Your task to perform on an android device: Go to CNN.com Image 0: 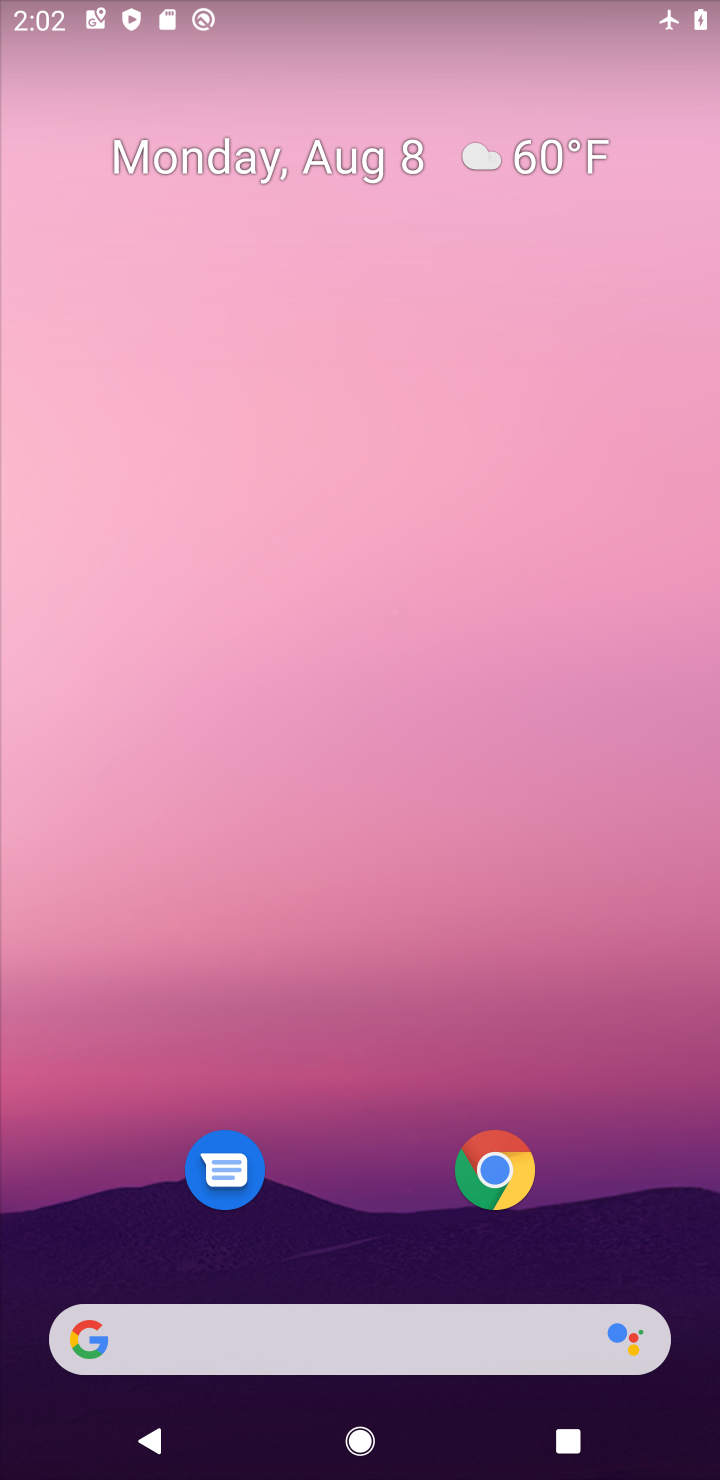
Step 0: press home button
Your task to perform on an android device: Go to CNN.com Image 1: 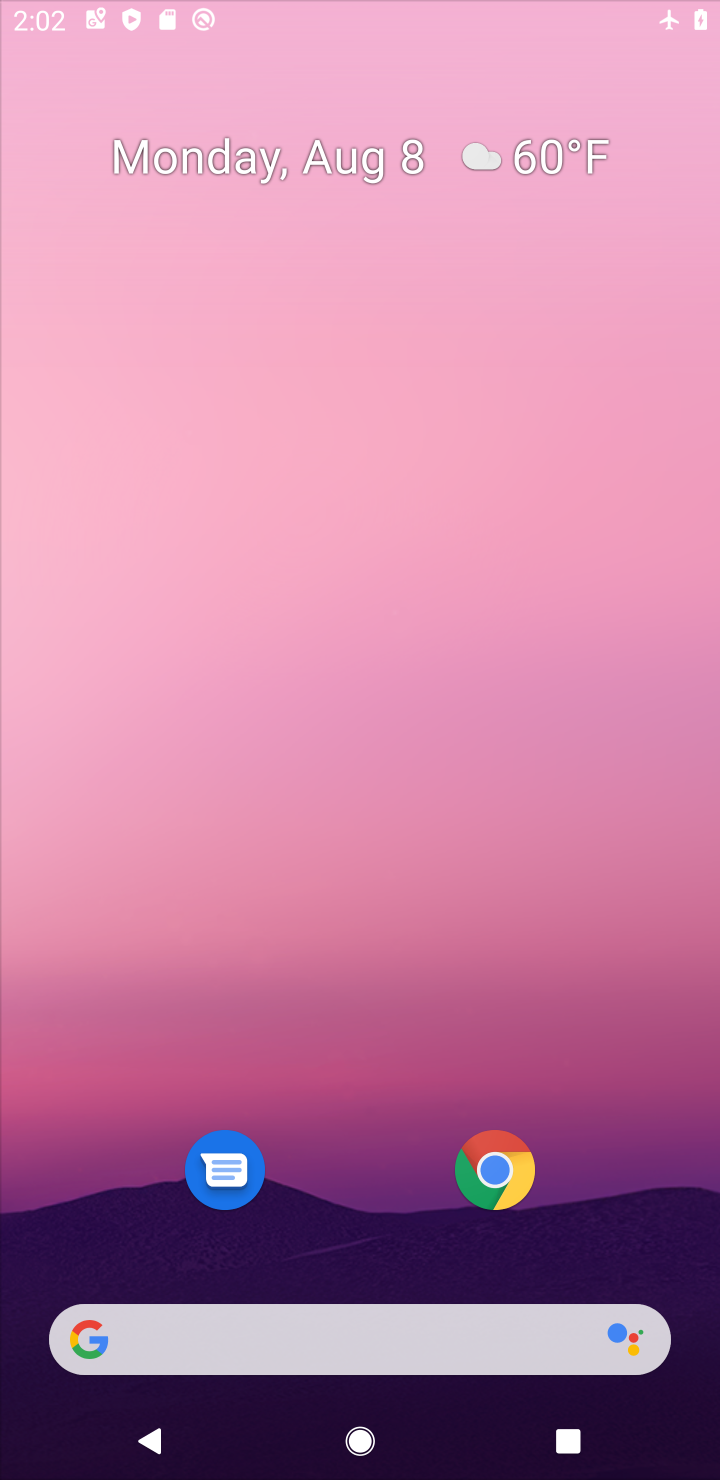
Step 1: click (509, 1184)
Your task to perform on an android device: Go to CNN.com Image 2: 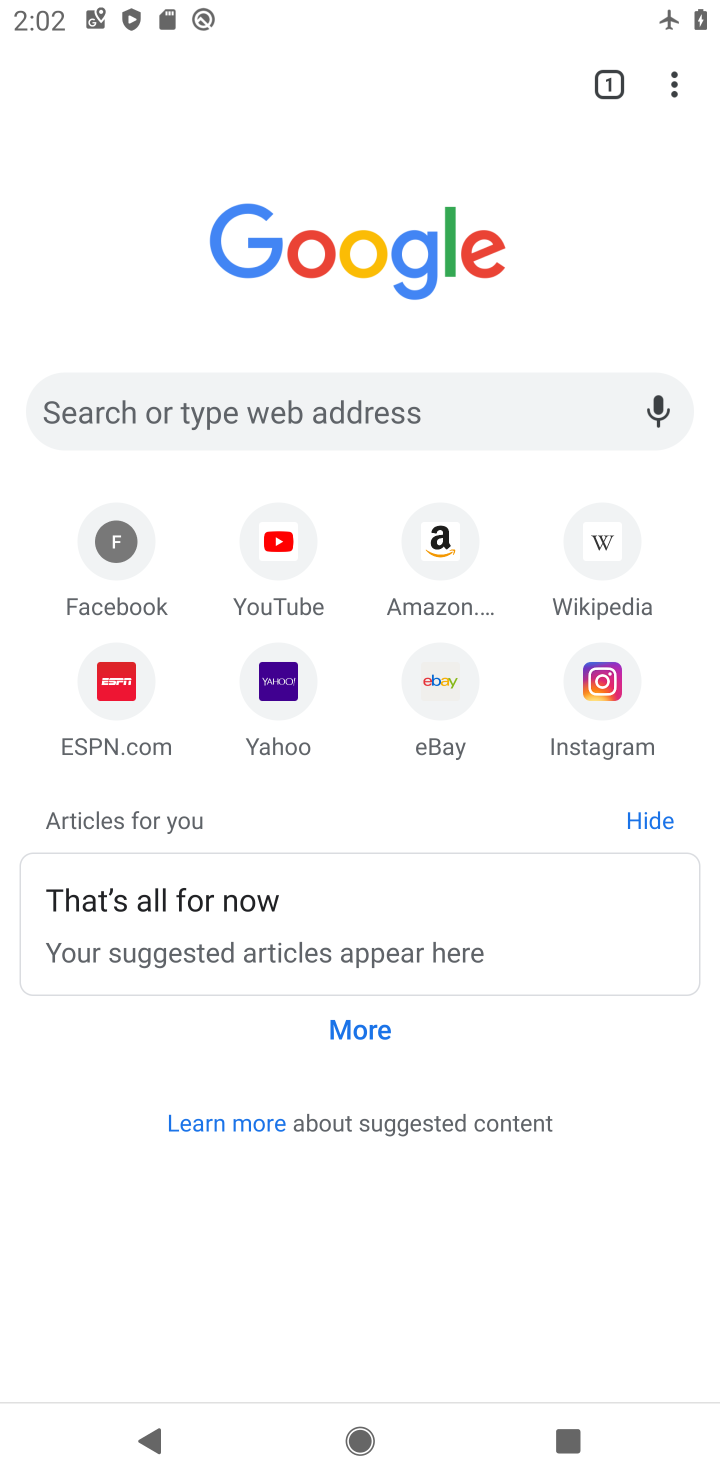
Step 2: click (359, 405)
Your task to perform on an android device: Go to CNN.com Image 3: 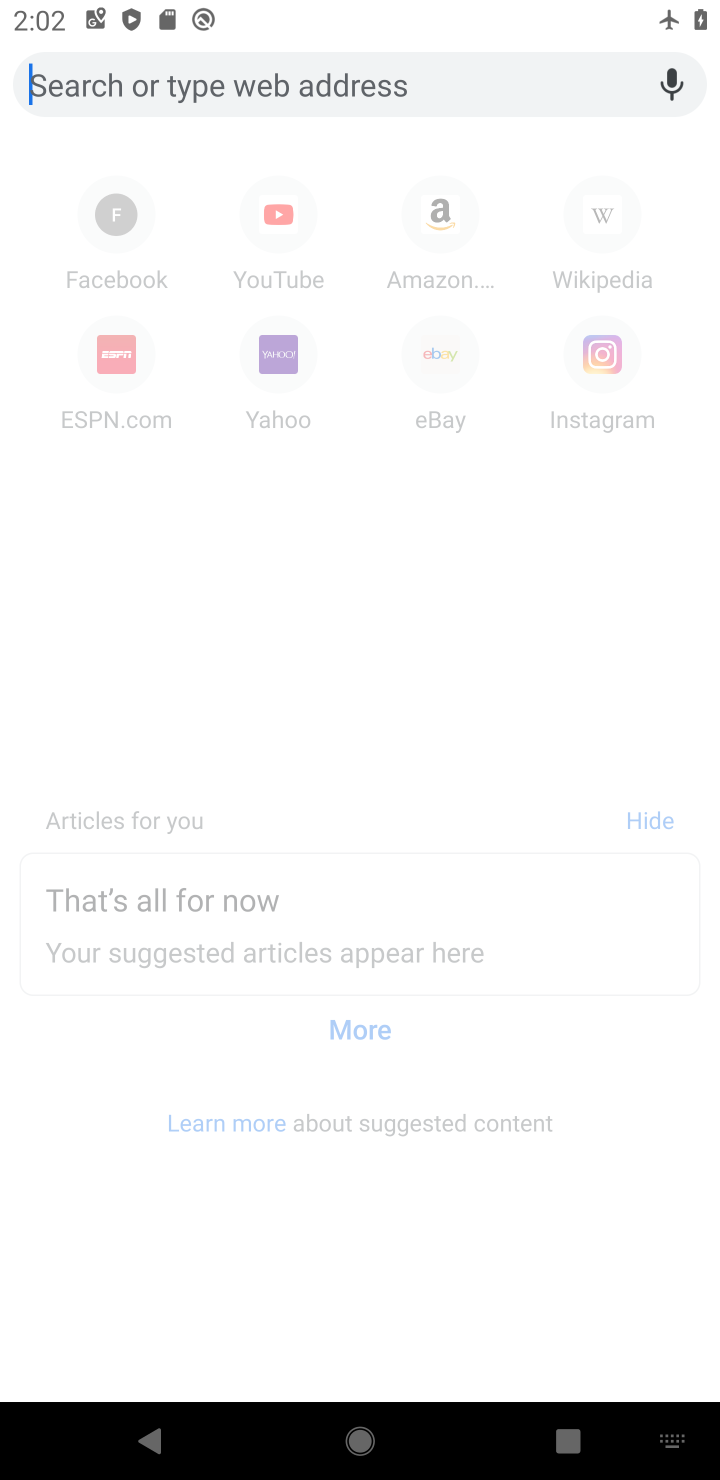
Step 3: type "CNN.com"
Your task to perform on an android device: Go to CNN.com Image 4: 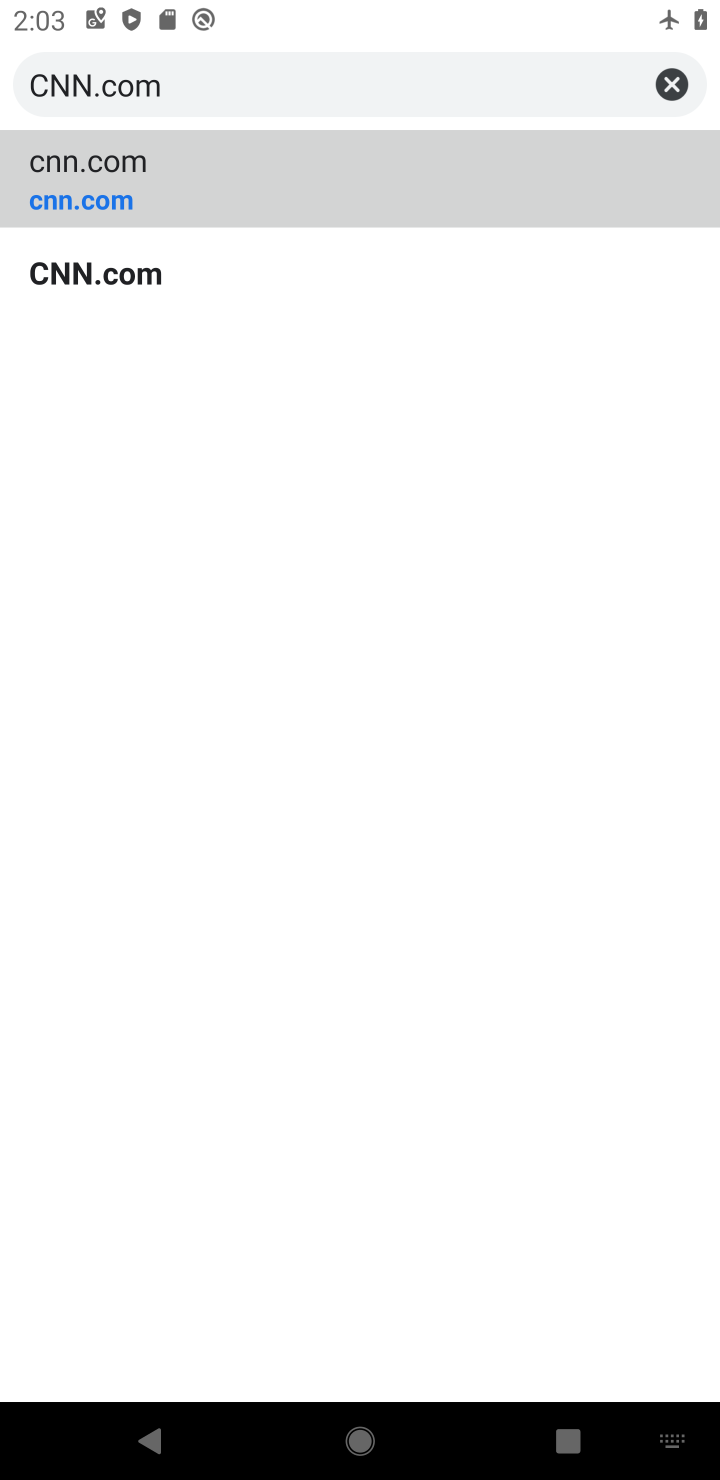
Step 4: click (414, 184)
Your task to perform on an android device: Go to CNN.com Image 5: 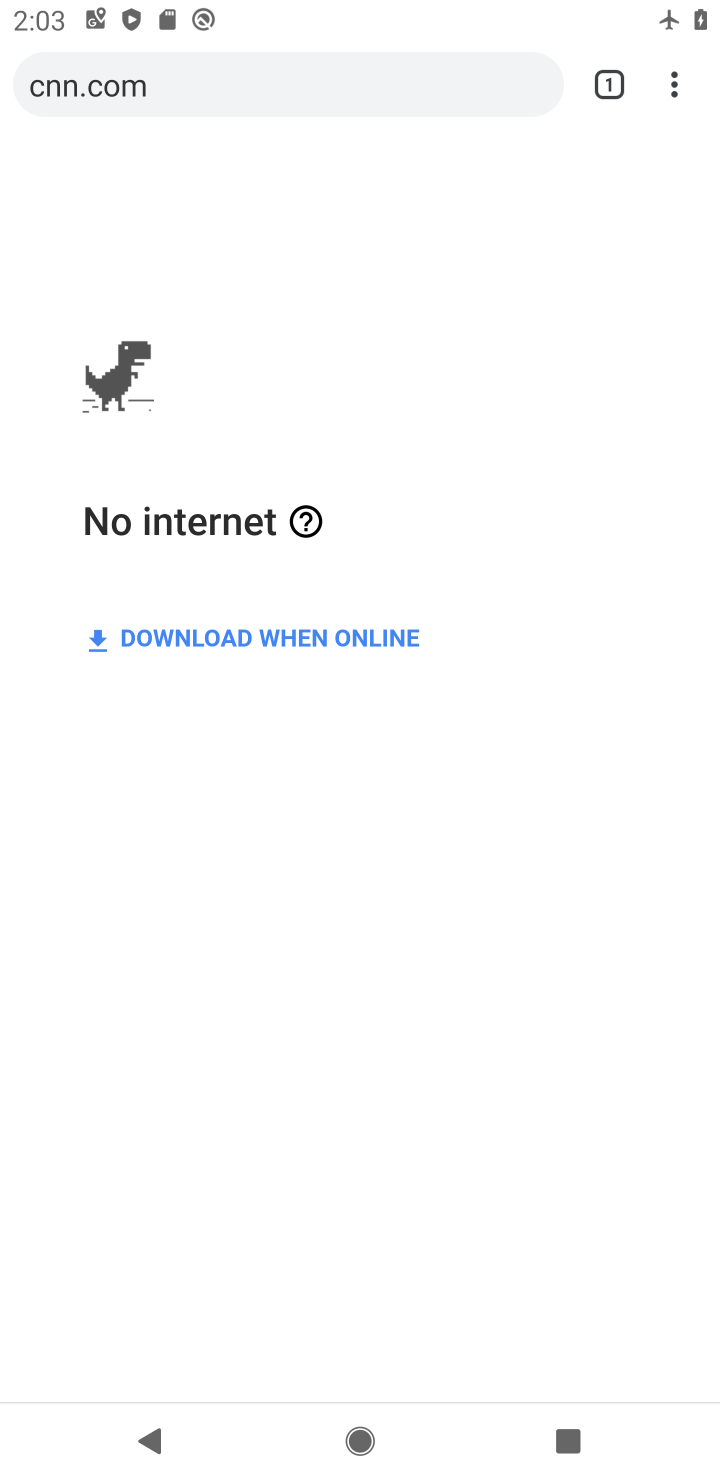
Step 5: task complete